Your task to perform on an android device: add a contact Image 0: 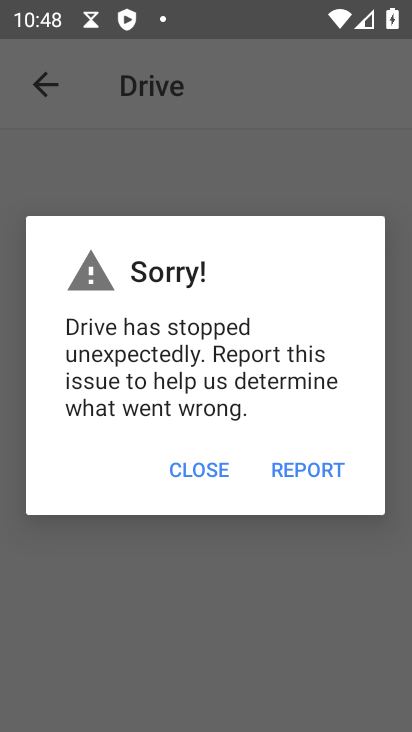
Step 0: drag from (154, 642) to (212, 485)
Your task to perform on an android device: add a contact Image 1: 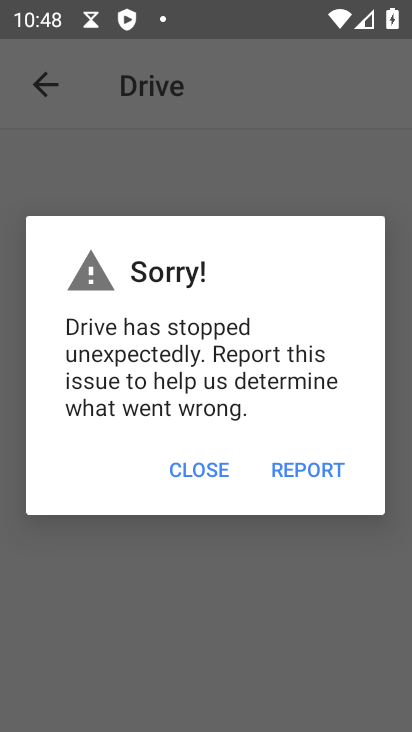
Step 1: press home button
Your task to perform on an android device: add a contact Image 2: 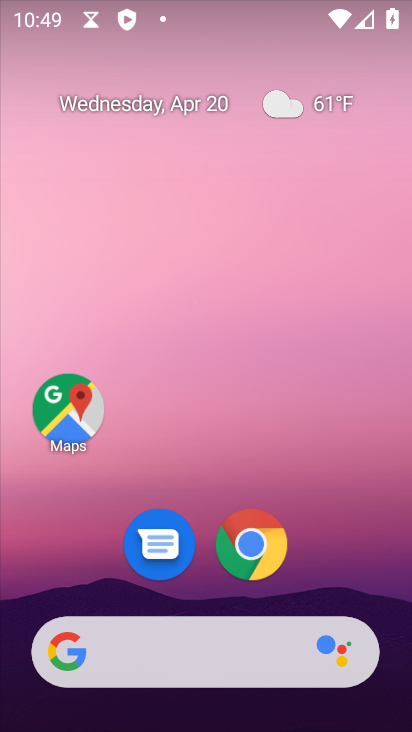
Step 2: drag from (137, 658) to (274, 45)
Your task to perform on an android device: add a contact Image 3: 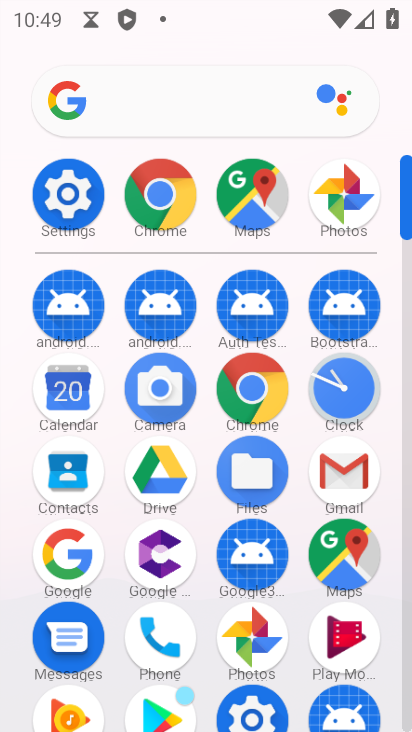
Step 3: click (61, 480)
Your task to perform on an android device: add a contact Image 4: 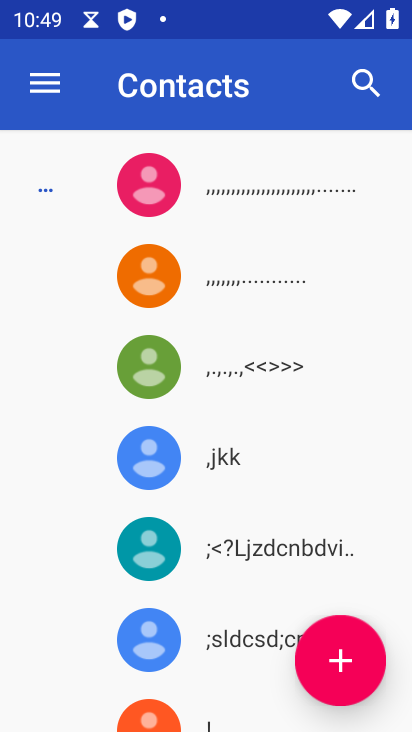
Step 4: click (337, 658)
Your task to perform on an android device: add a contact Image 5: 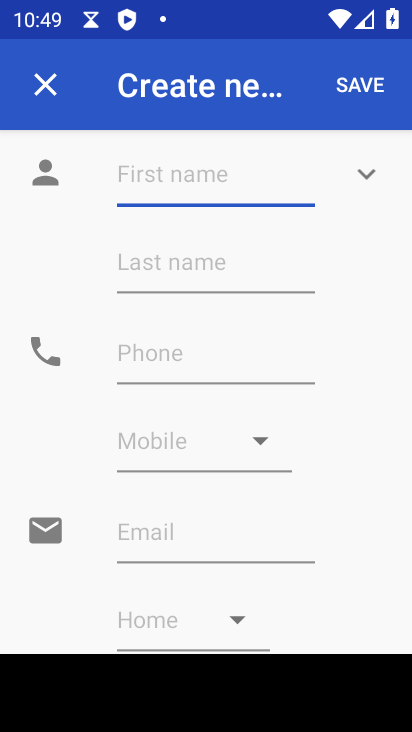
Step 5: type "rgfjhytgfv"
Your task to perform on an android device: add a contact Image 6: 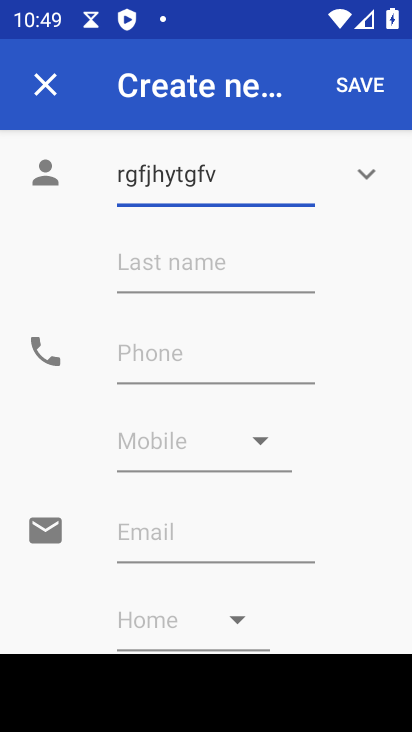
Step 6: click (145, 362)
Your task to perform on an android device: add a contact Image 7: 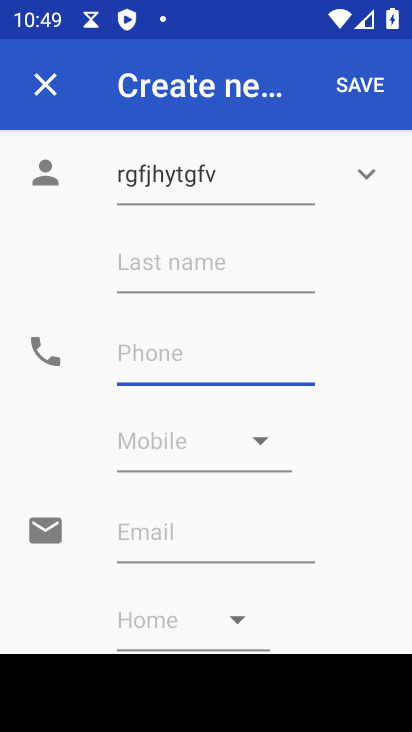
Step 7: type "09567487"
Your task to perform on an android device: add a contact Image 8: 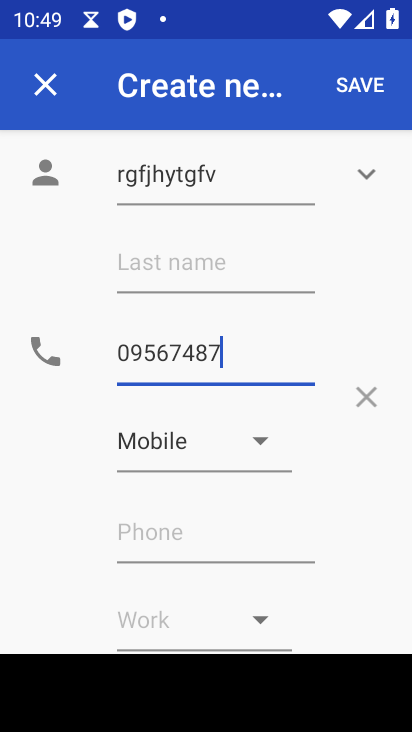
Step 8: click (376, 87)
Your task to perform on an android device: add a contact Image 9: 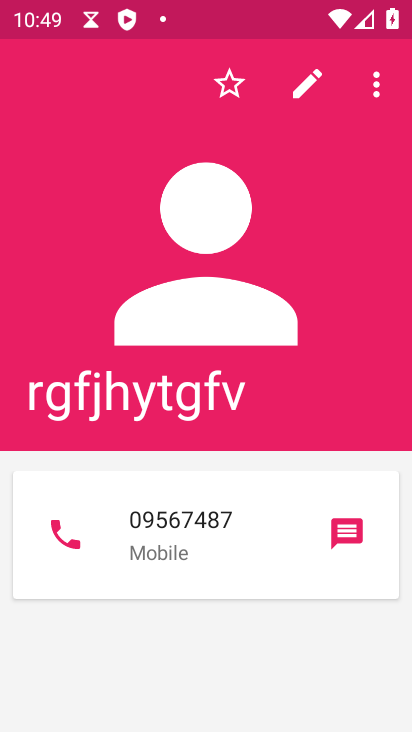
Step 9: task complete